Your task to perform on an android device: Go to Maps Image 0: 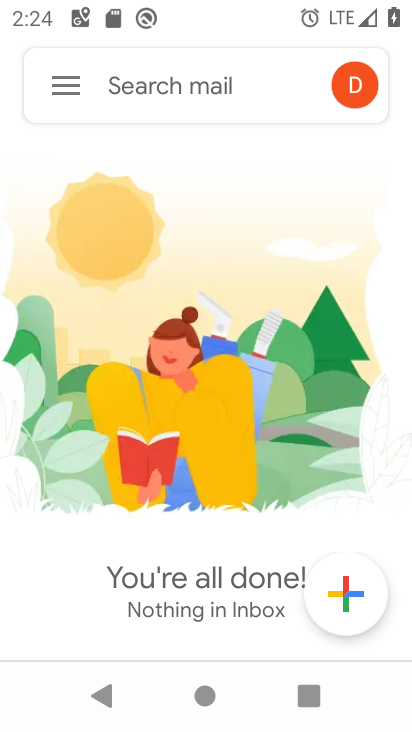
Step 0: press home button
Your task to perform on an android device: Go to Maps Image 1: 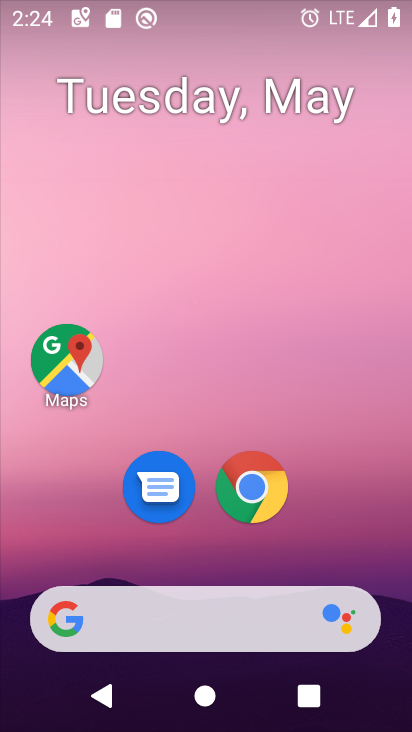
Step 1: click (38, 357)
Your task to perform on an android device: Go to Maps Image 2: 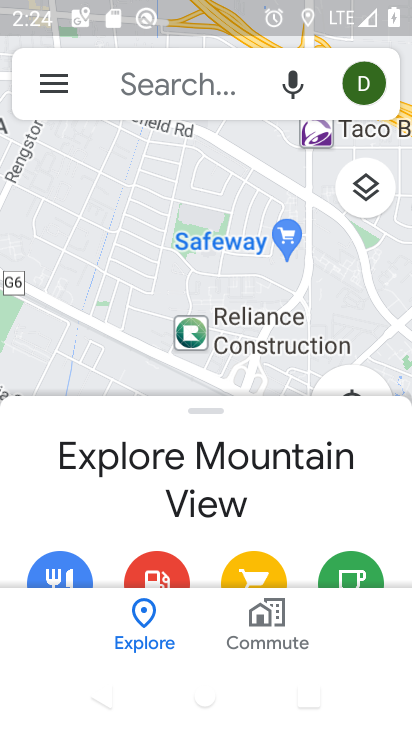
Step 2: task complete